Your task to perform on an android device: Go to Google Image 0: 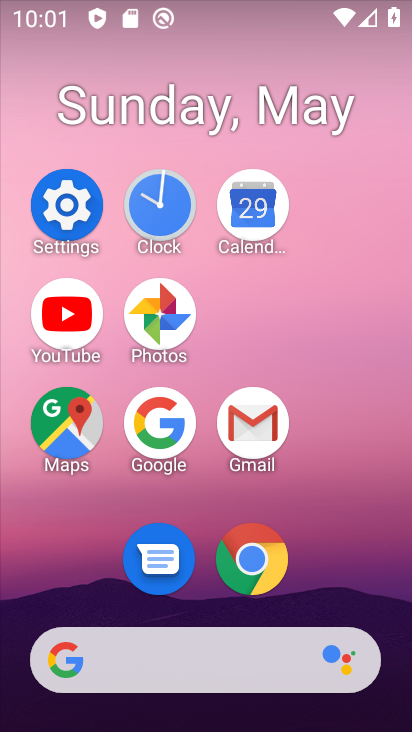
Step 0: click (162, 426)
Your task to perform on an android device: Go to Google Image 1: 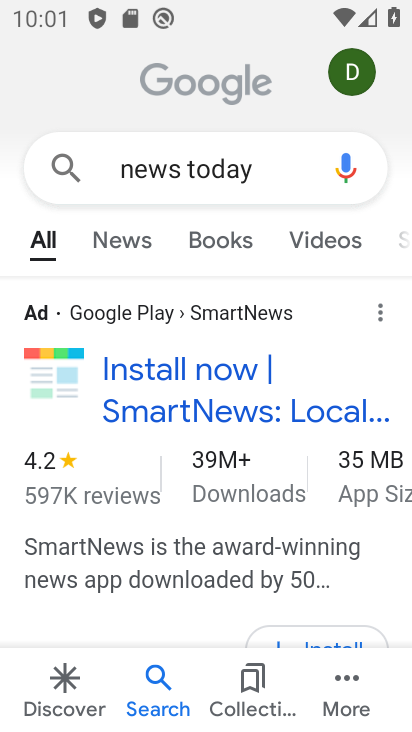
Step 1: task complete